Your task to perform on an android device: read, delete, or share a saved page in the chrome app Image 0: 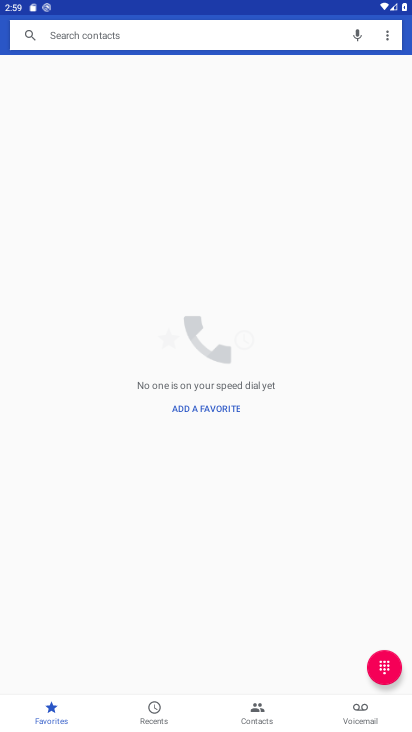
Step 0: press home button
Your task to perform on an android device: read, delete, or share a saved page in the chrome app Image 1: 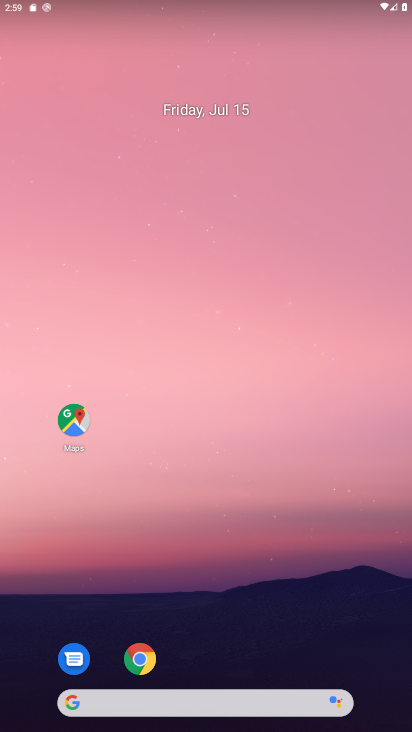
Step 1: click (141, 659)
Your task to perform on an android device: read, delete, or share a saved page in the chrome app Image 2: 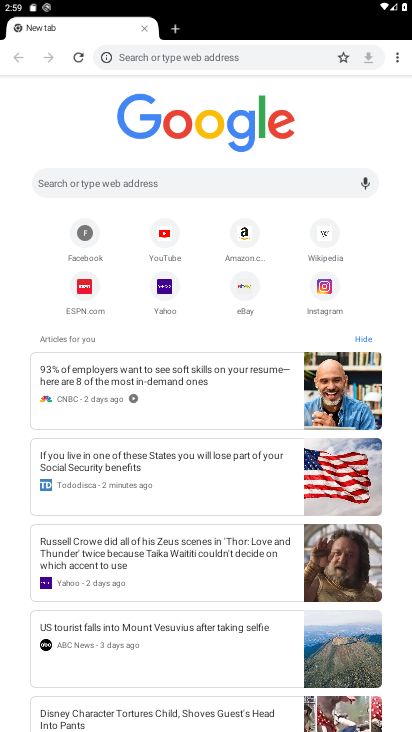
Step 2: click (402, 59)
Your task to perform on an android device: read, delete, or share a saved page in the chrome app Image 3: 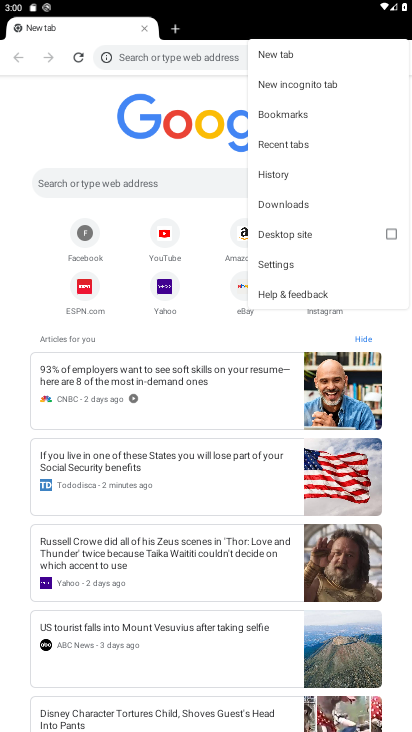
Step 3: click (281, 201)
Your task to perform on an android device: read, delete, or share a saved page in the chrome app Image 4: 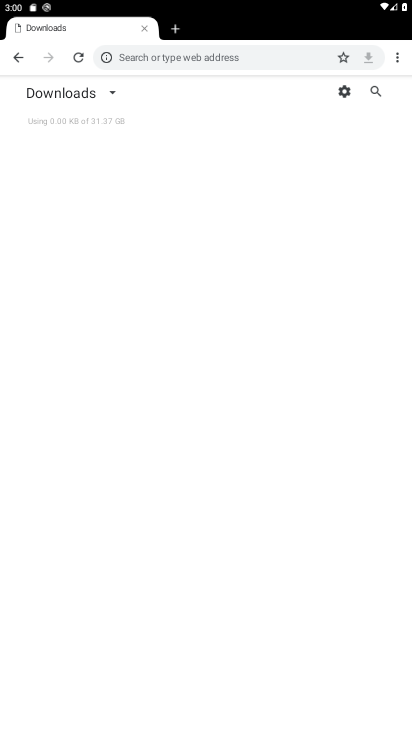
Step 4: task complete